Your task to perform on an android device: change keyboard looks Image 0: 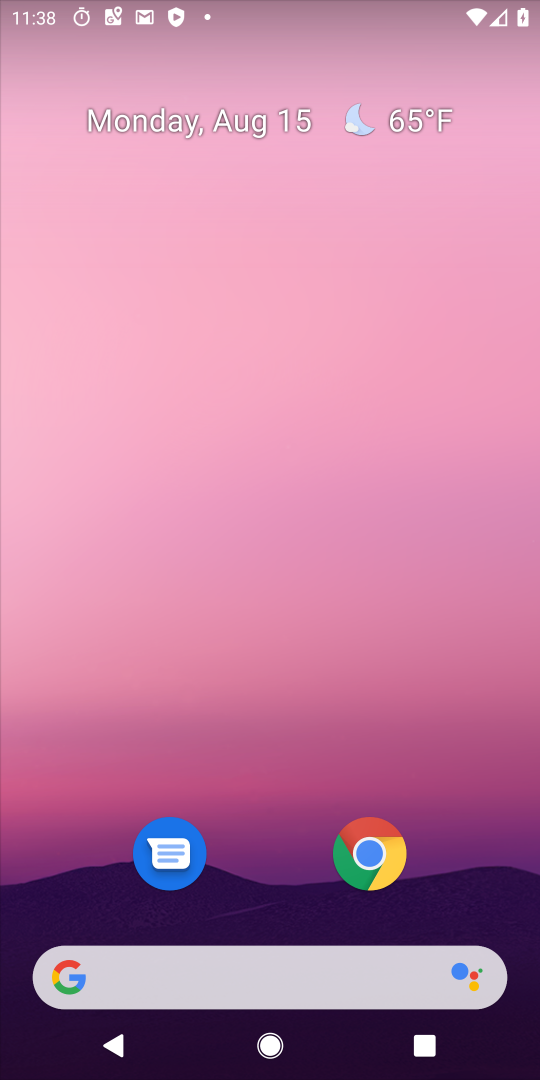
Step 0: drag from (267, 823) to (257, 347)
Your task to perform on an android device: change keyboard looks Image 1: 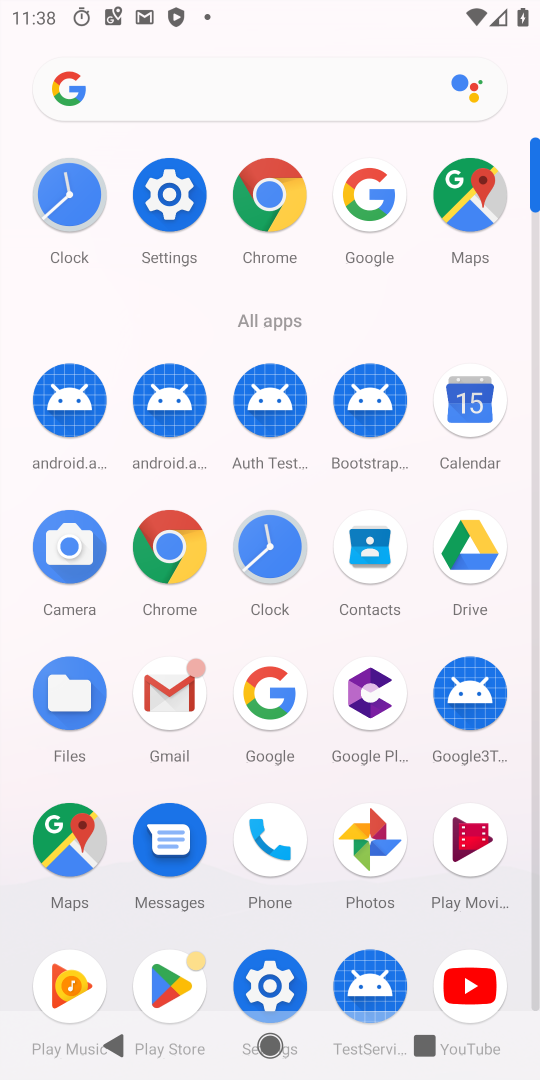
Step 1: click (161, 202)
Your task to perform on an android device: change keyboard looks Image 2: 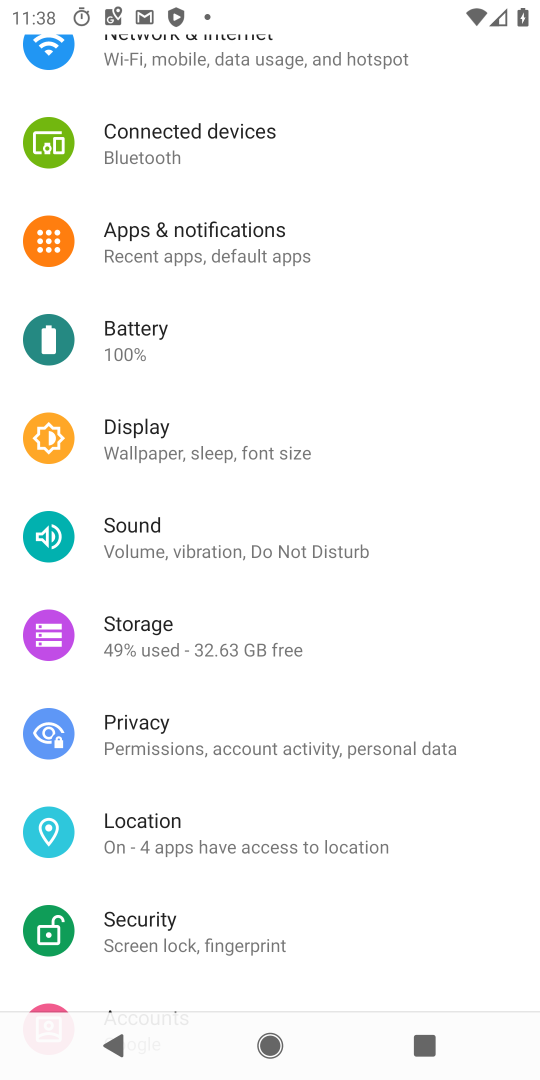
Step 2: drag from (222, 590) to (214, 302)
Your task to perform on an android device: change keyboard looks Image 3: 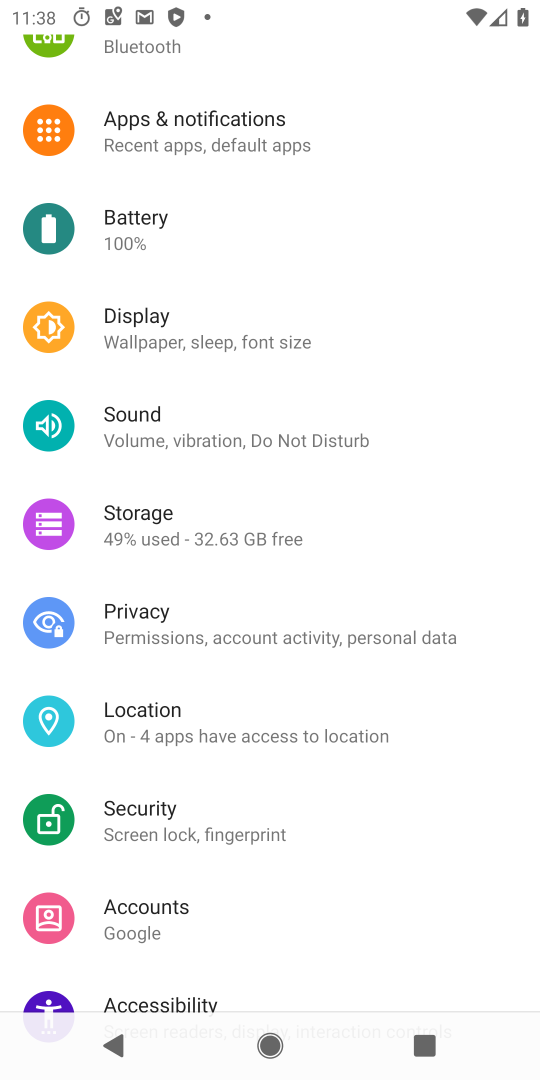
Step 3: drag from (178, 953) to (119, 501)
Your task to perform on an android device: change keyboard looks Image 4: 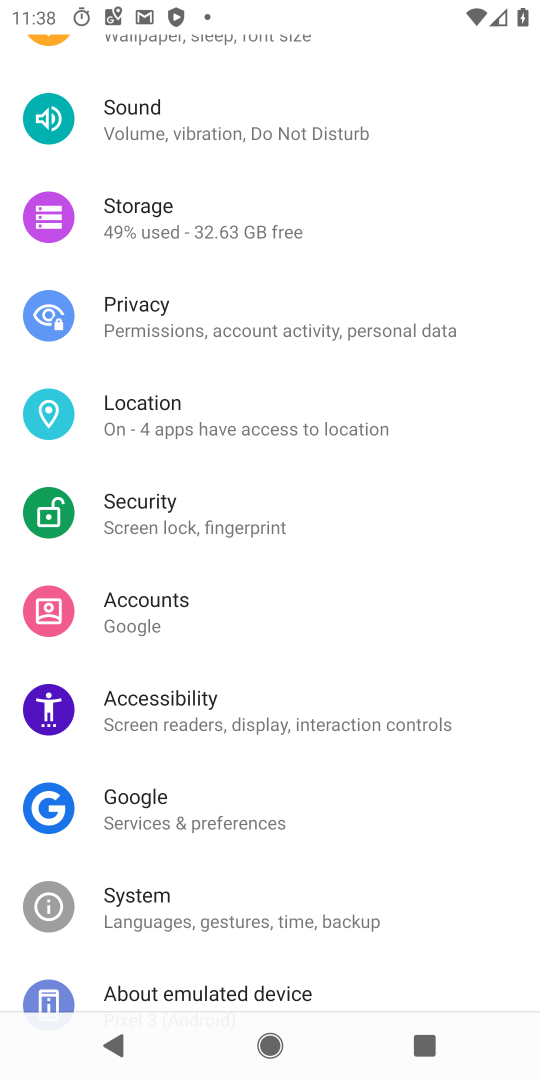
Step 4: drag from (119, 861) to (142, 586)
Your task to perform on an android device: change keyboard looks Image 5: 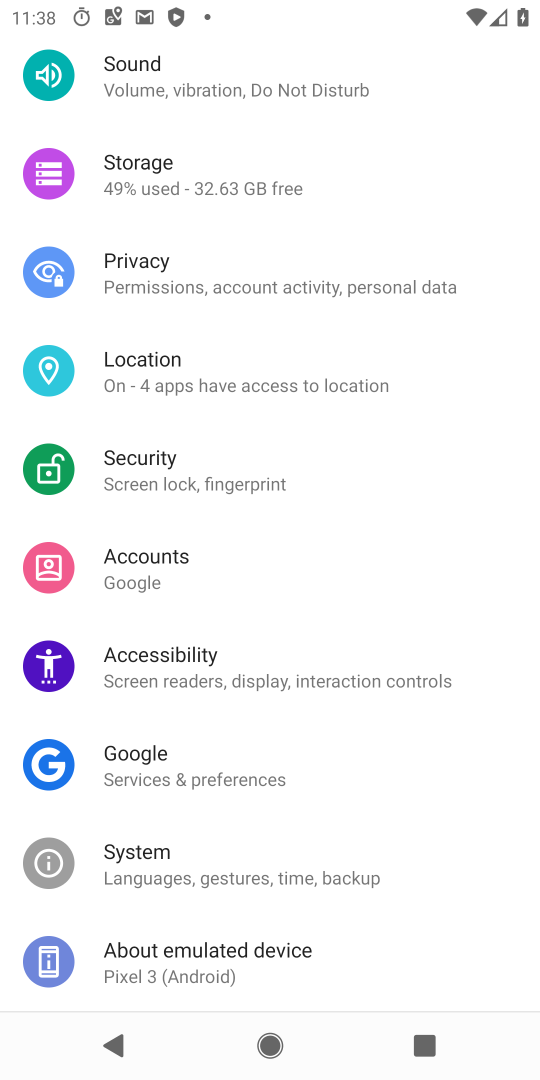
Step 5: click (143, 886)
Your task to perform on an android device: change keyboard looks Image 6: 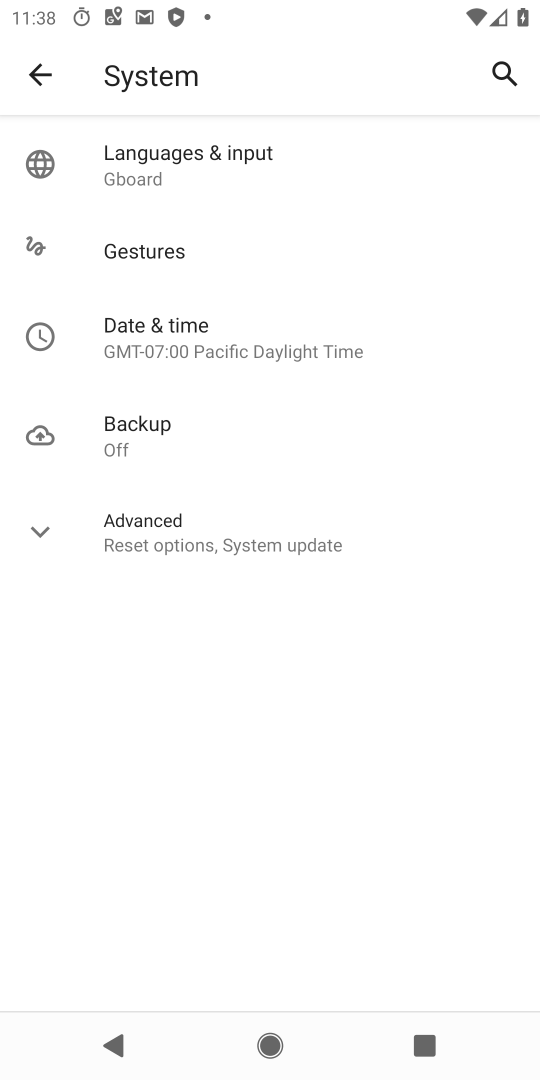
Step 6: click (107, 156)
Your task to perform on an android device: change keyboard looks Image 7: 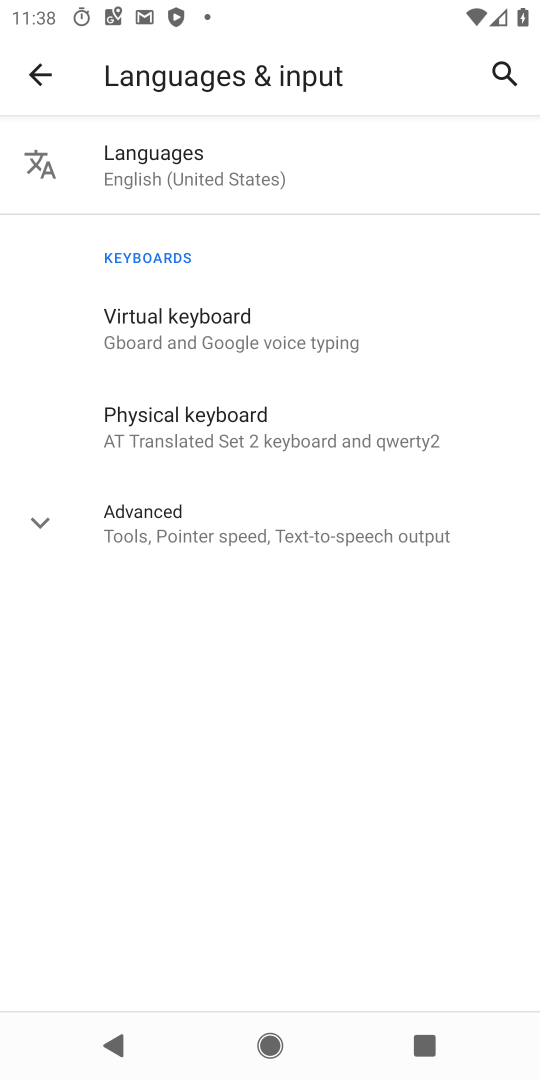
Step 7: click (145, 328)
Your task to perform on an android device: change keyboard looks Image 8: 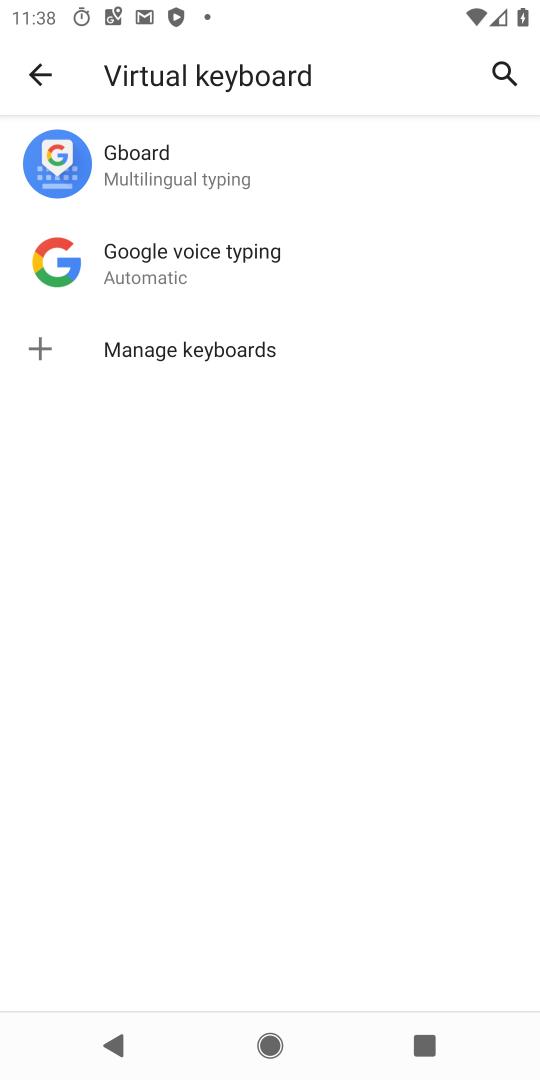
Step 8: click (112, 163)
Your task to perform on an android device: change keyboard looks Image 9: 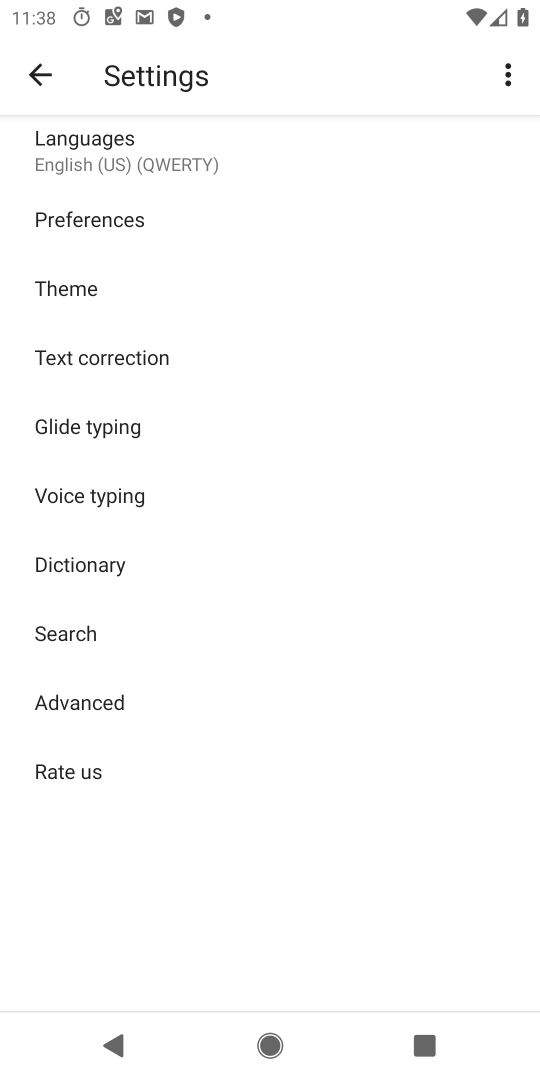
Step 9: click (66, 283)
Your task to perform on an android device: change keyboard looks Image 10: 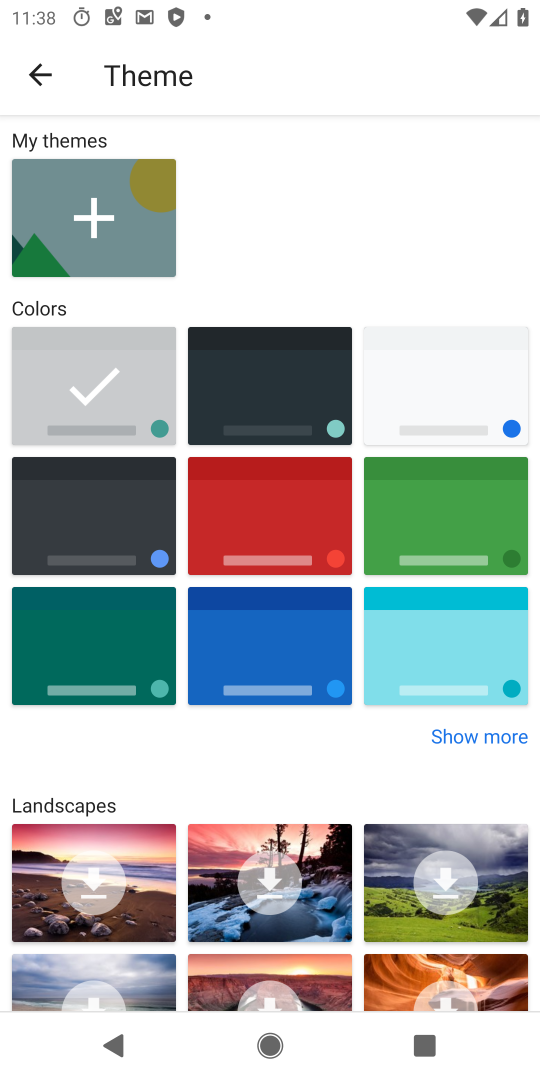
Step 10: click (292, 509)
Your task to perform on an android device: change keyboard looks Image 11: 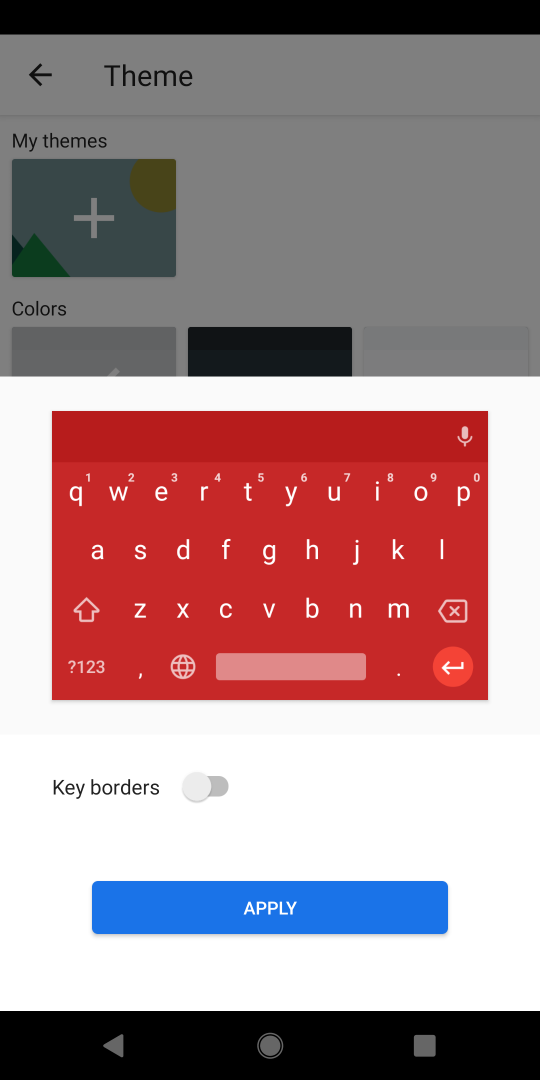
Step 11: click (234, 906)
Your task to perform on an android device: change keyboard looks Image 12: 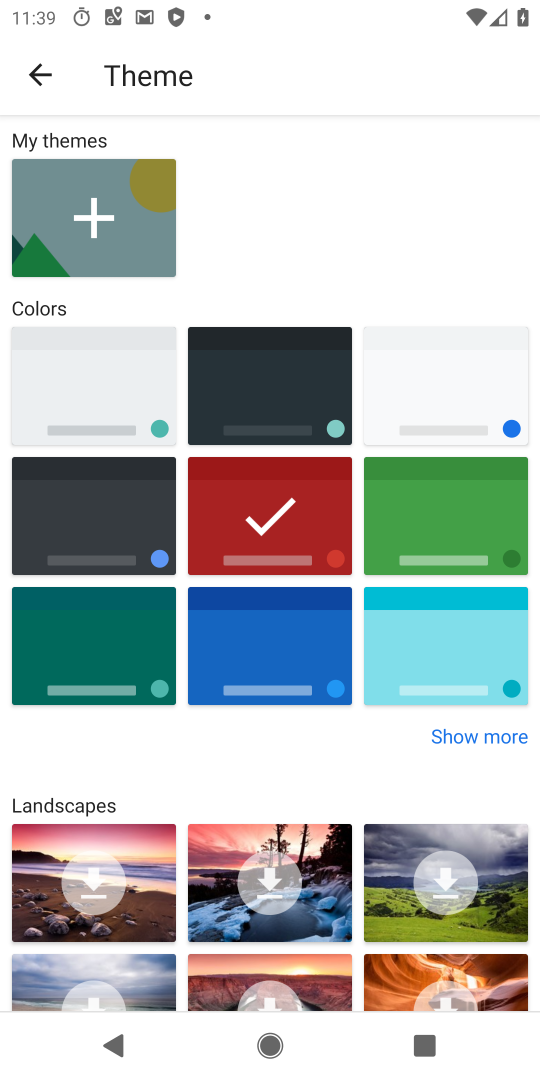
Step 12: task complete